Your task to perform on an android device: turn on showing notifications on the lock screen Image 0: 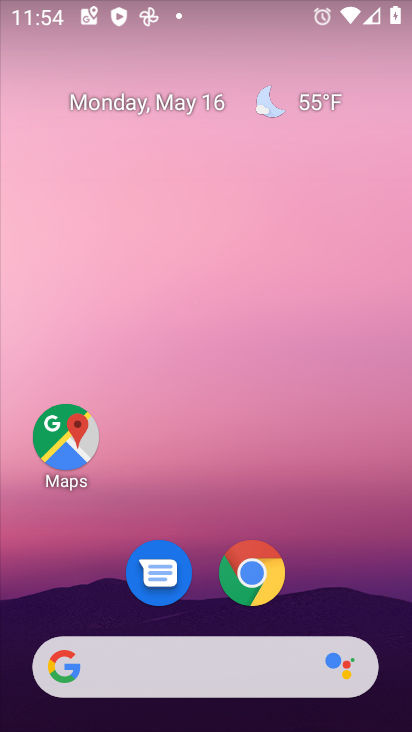
Step 0: drag from (335, 589) to (287, 224)
Your task to perform on an android device: turn on showing notifications on the lock screen Image 1: 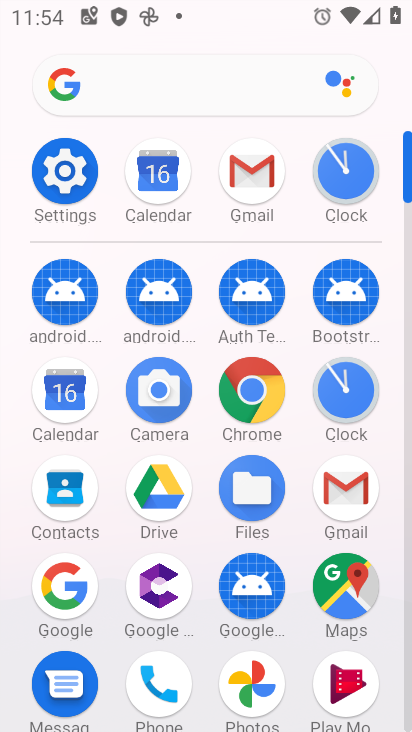
Step 1: click (74, 196)
Your task to perform on an android device: turn on showing notifications on the lock screen Image 2: 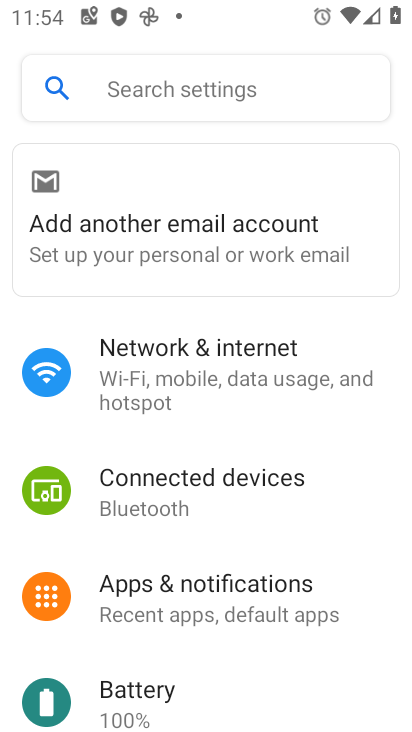
Step 2: click (270, 605)
Your task to perform on an android device: turn on showing notifications on the lock screen Image 3: 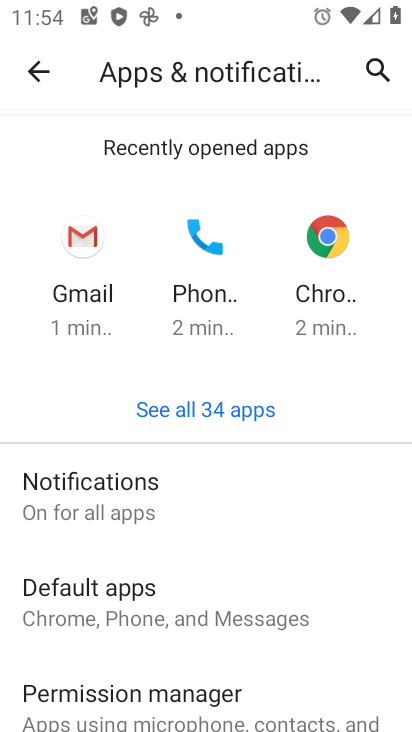
Step 3: click (159, 502)
Your task to perform on an android device: turn on showing notifications on the lock screen Image 4: 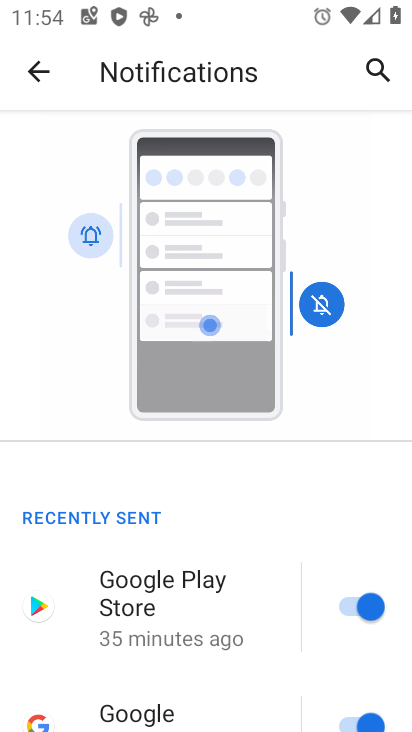
Step 4: drag from (279, 621) to (296, 173)
Your task to perform on an android device: turn on showing notifications on the lock screen Image 5: 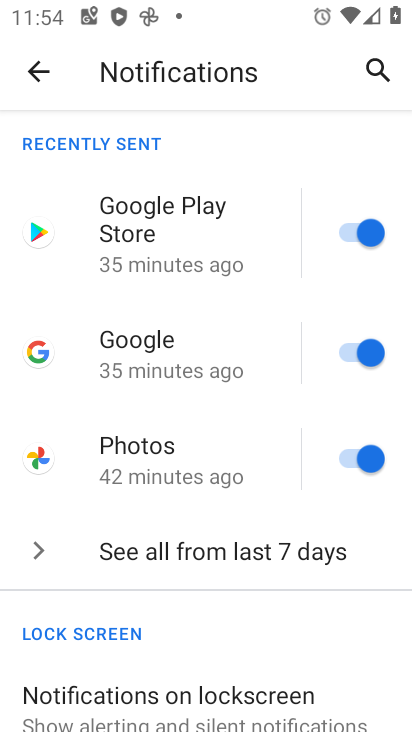
Step 5: click (258, 718)
Your task to perform on an android device: turn on showing notifications on the lock screen Image 6: 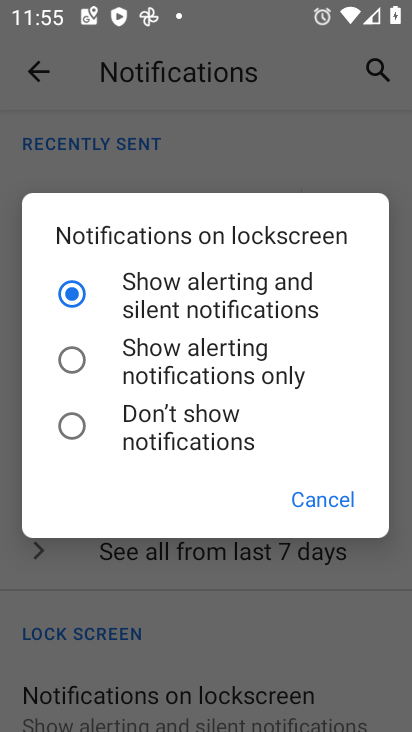
Step 6: click (308, 499)
Your task to perform on an android device: turn on showing notifications on the lock screen Image 7: 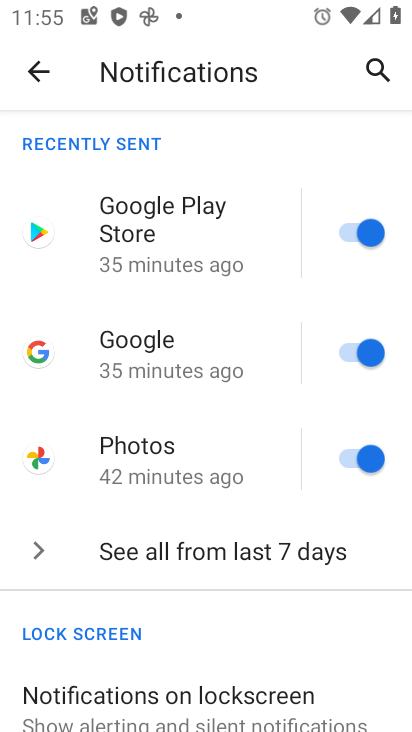
Step 7: task complete